Your task to perform on an android device: check android version Image 0: 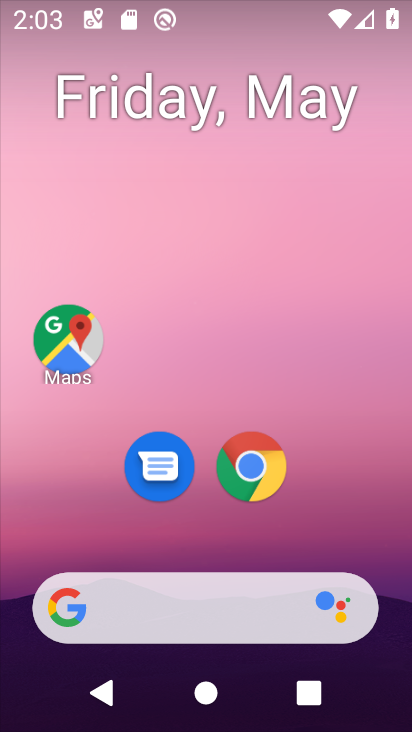
Step 0: drag from (368, 551) to (410, 51)
Your task to perform on an android device: check android version Image 1: 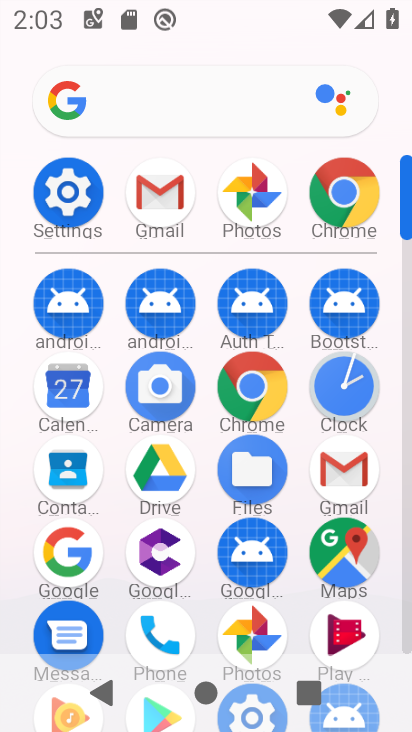
Step 1: click (53, 197)
Your task to perform on an android device: check android version Image 2: 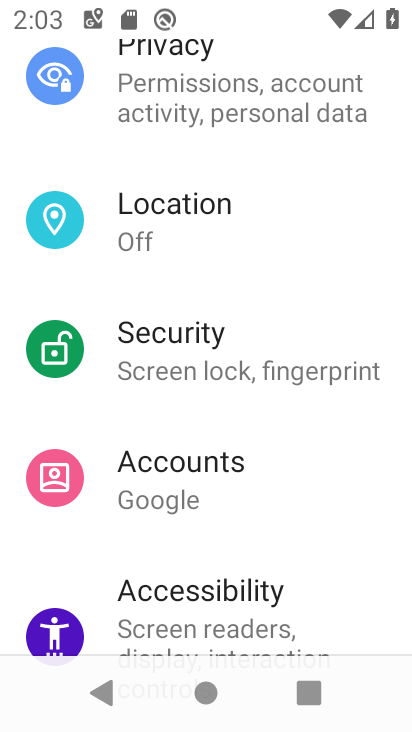
Step 2: drag from (183, 610) to (275, 99)
Your task to perform on an android device: check android version Image 3: 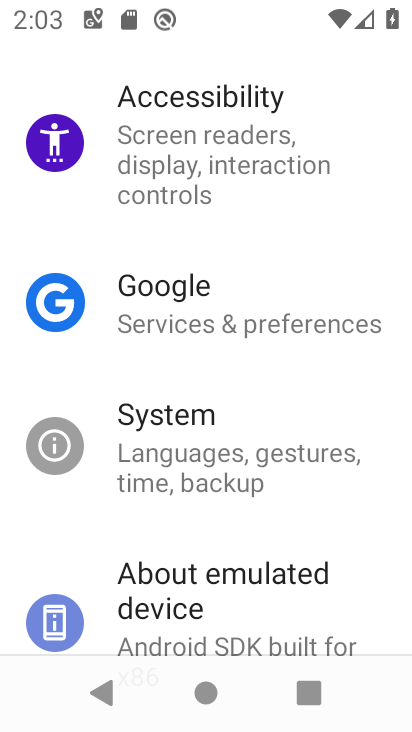
Step 3: drag from (247, 570) to (291, 78)
Your task to perform on an android device: check android version Image 4: 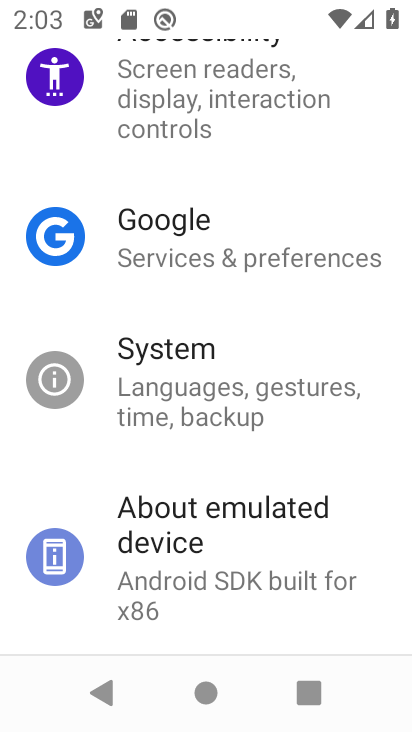
Step 4: drag from (309, 578) to (352, 82)
Your task to perform on an android device: check android version Image 5: 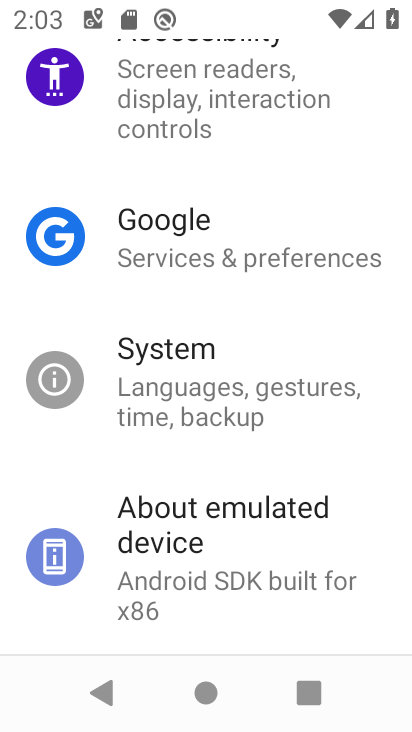
Step 5: drag from (285, 553) to (269, 165)
Your task to perform on an android device: check android version Image 6: 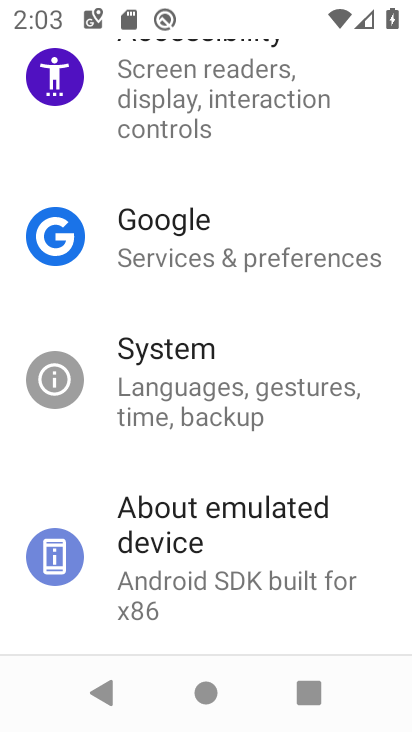
Step 6: drag from (244, 437) to (209, 201)
Your task to perform on an android device: check android version Image 7: 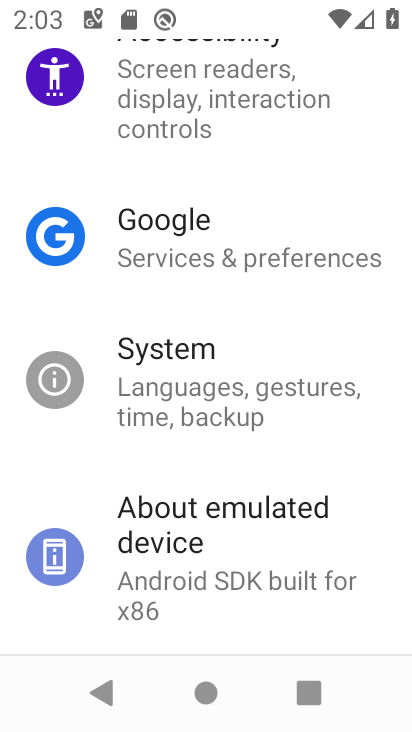
Step 7: drag from (266, 539) to (271, 130)
Your task to perform on an android device: check android version Image 8: 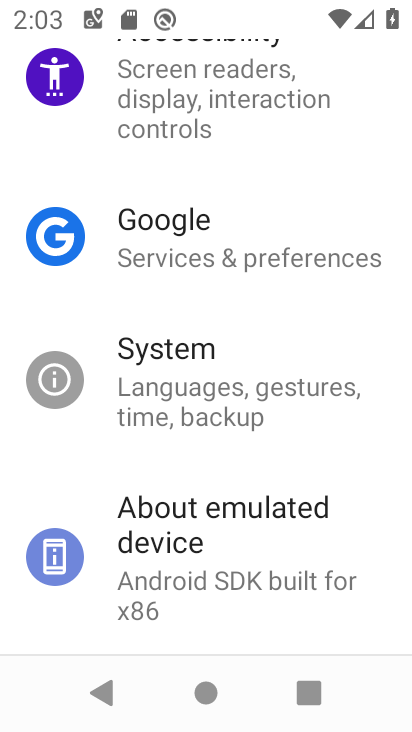
Step 8: click (160, 594)
Your task to perform on an android device: check android version Image 9: 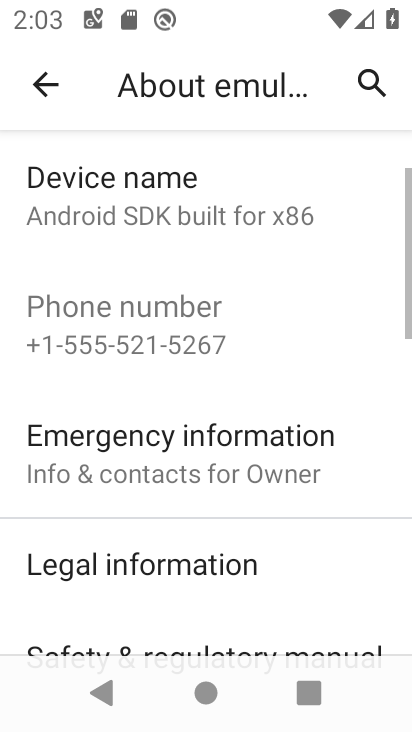
Step 9: drag from (217, 503) to (237, 153)
Your task to perform on an android device: check android version Image 10: 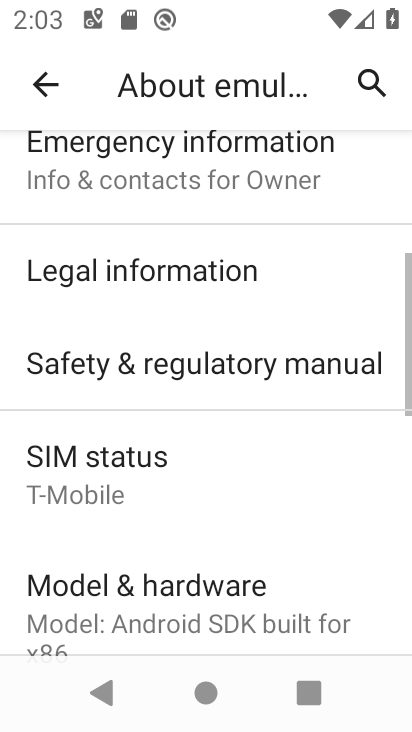
Step 10: drag from (217, 607) to (270, 109)
Your task to perform on an android device: check android version Image 11: 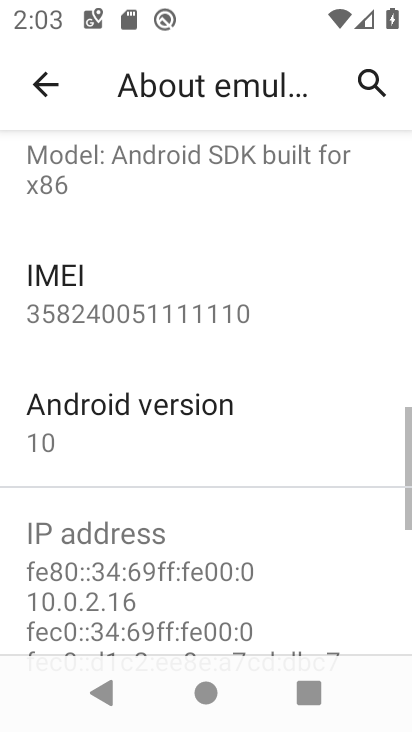
Step 11: click (153, 404)
Your task to perform on an android device: check android version Image 12: 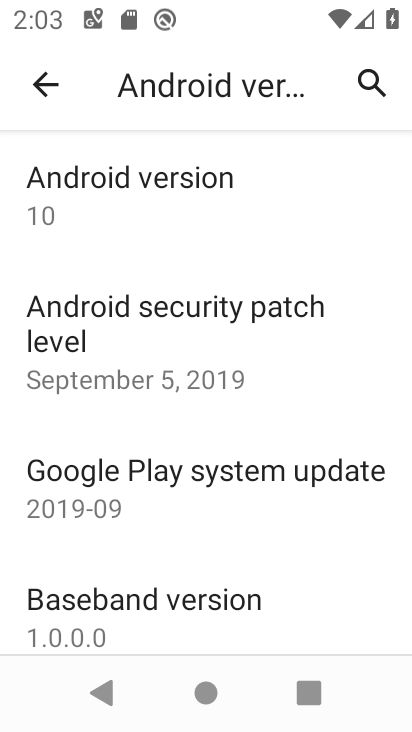
Step 12: click (93, 214)
Your task to perform on an android device: check android version Image 13: 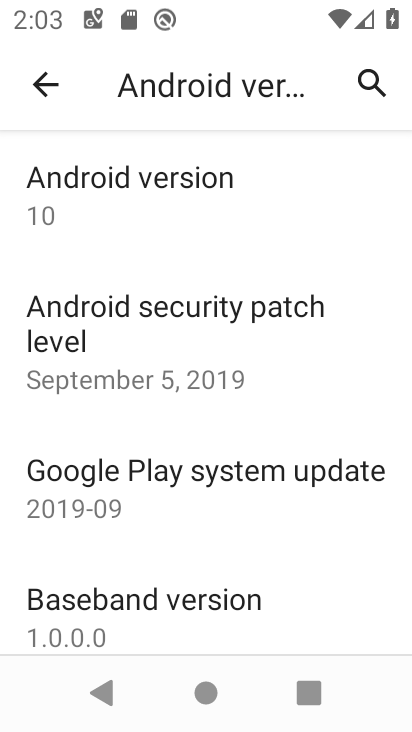
Step 13: task complete